Your task to perform on an android device: Open Reddit.com Image 0: 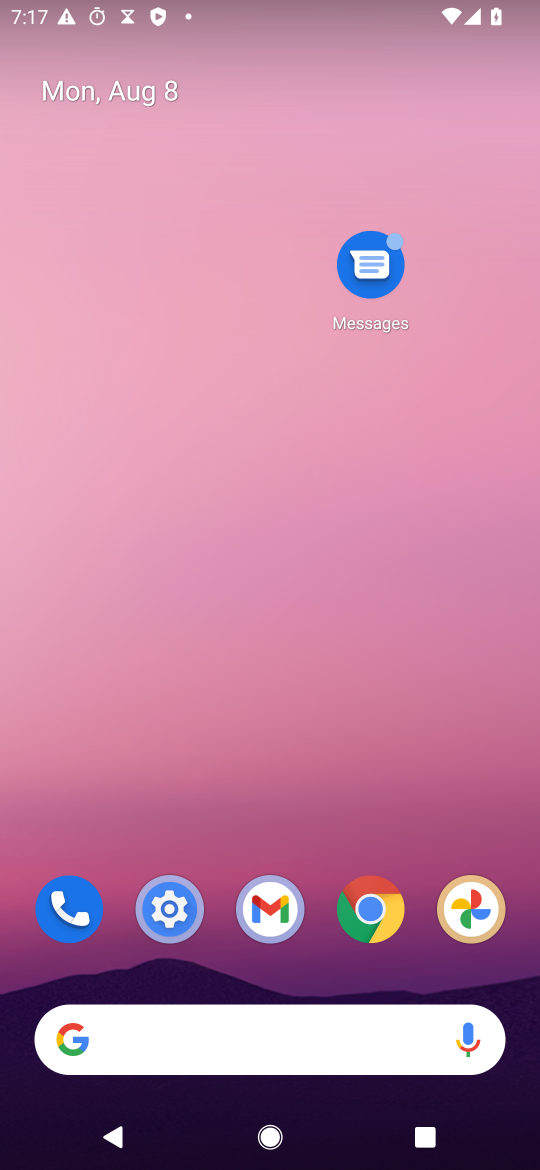
Step 0: click (371, 920)
Your task to perform on an android device: Open Reddit.com Image 1: 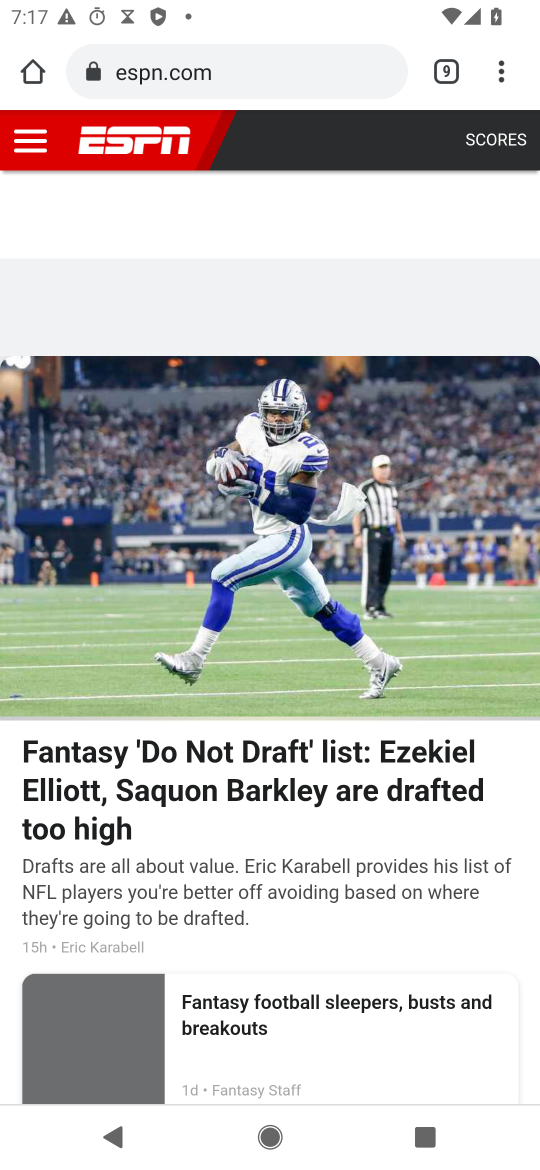
Step 1: drag from (506, 70) to (343, 238)
Your task to perform on an android device: Open Reddit.com Image 2: 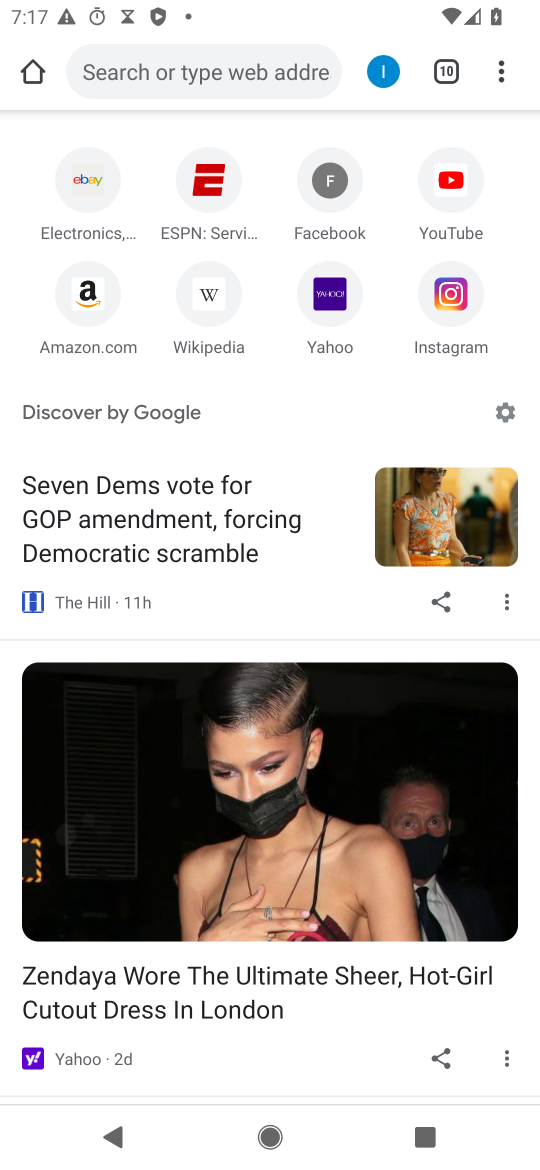
Step 2: click (182, 60)
Your task to perform on an android device: Open Reddit.com Image 3: 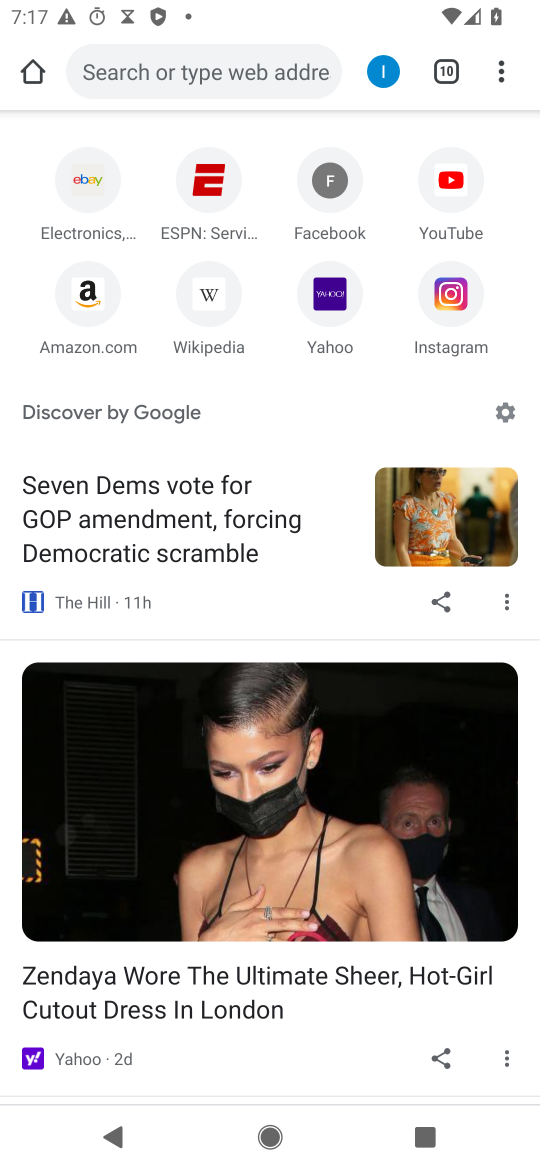
Step 3: click (118, 68)
Your task to perform on an android device: Open Reddit.com Image 4: 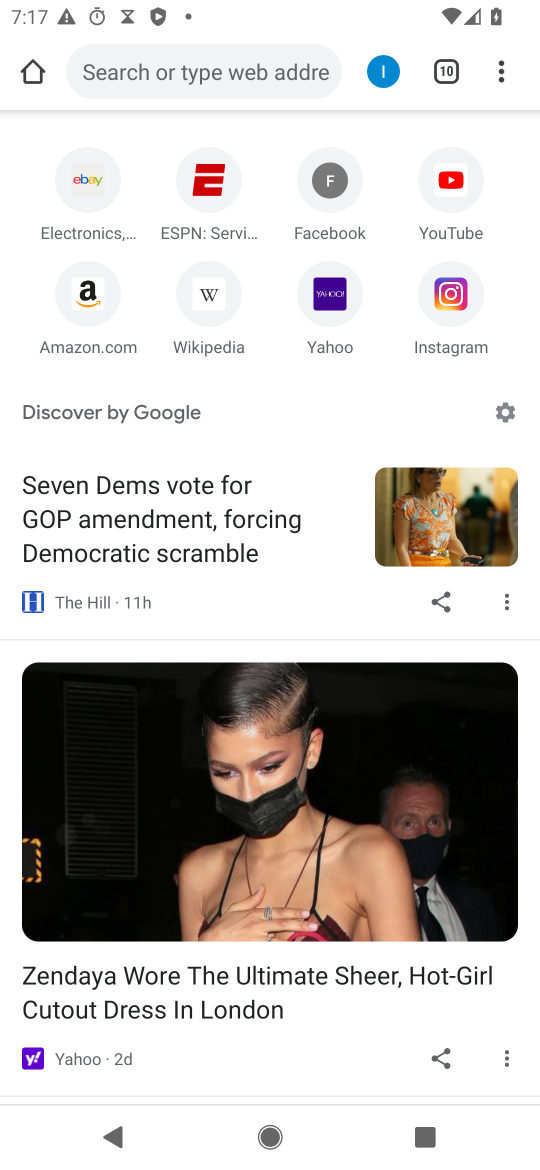
Step 4: click (147, 69)
Your task to perform on an android device: Open Reddit.com Image 5: 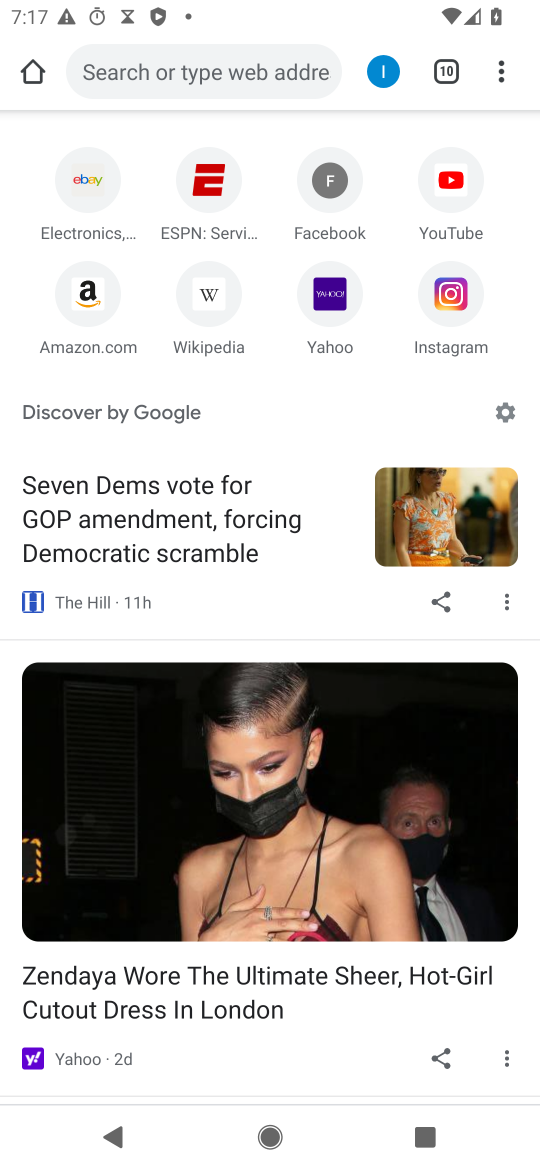
Step 5: click (162, 60)
Your task to perform on an android device: Open Reddit.com Image 6: 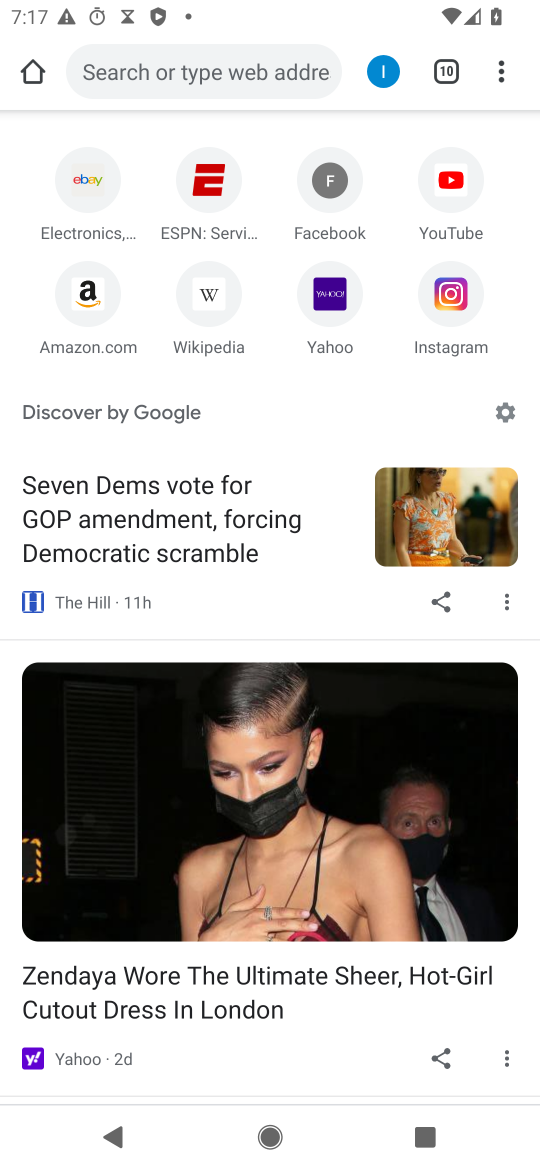
Step 6: drag from (336, 472) to (352, 855)
Your task to perform on an android device: Open Reddit.com Image 7: 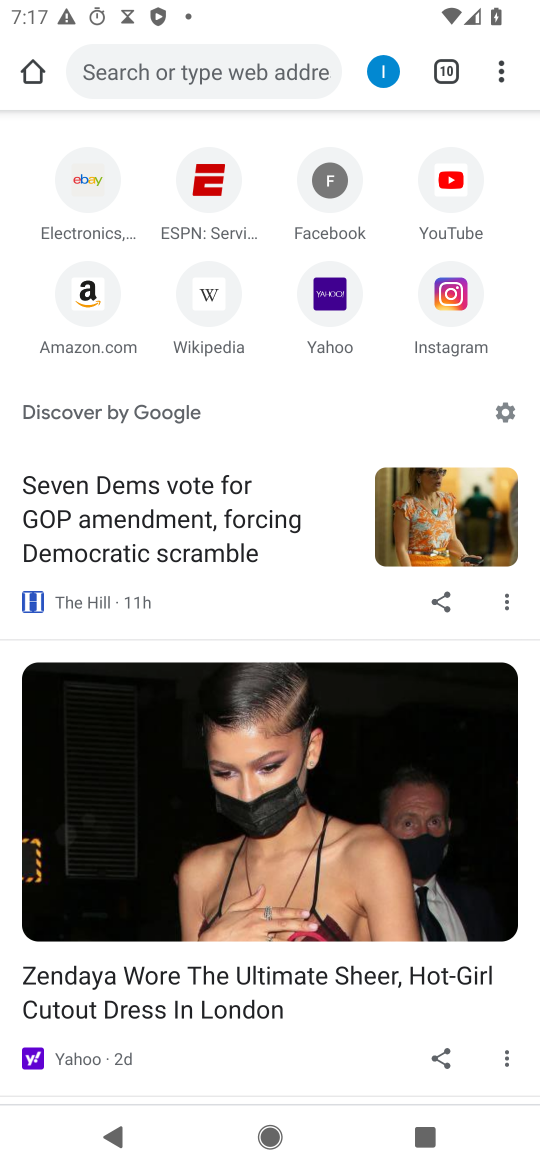
Step 7: click (166, 61)
Your task to perform on an android device: Open Reddit.com Image 8: 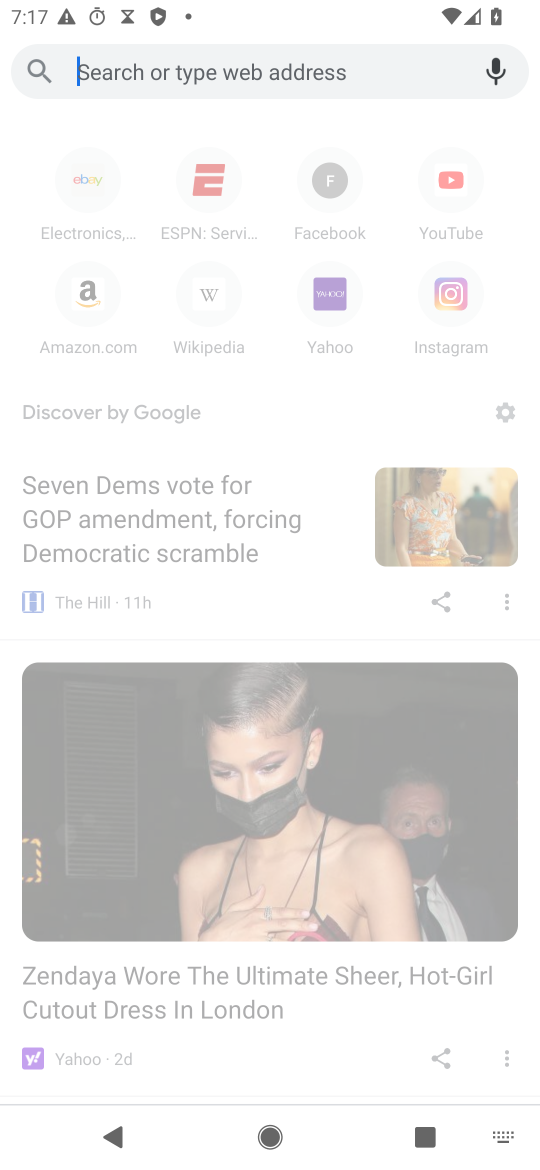
Step 8: click (160, 68)
Your task to perform on an android device: Open Reddit.com Image 9: 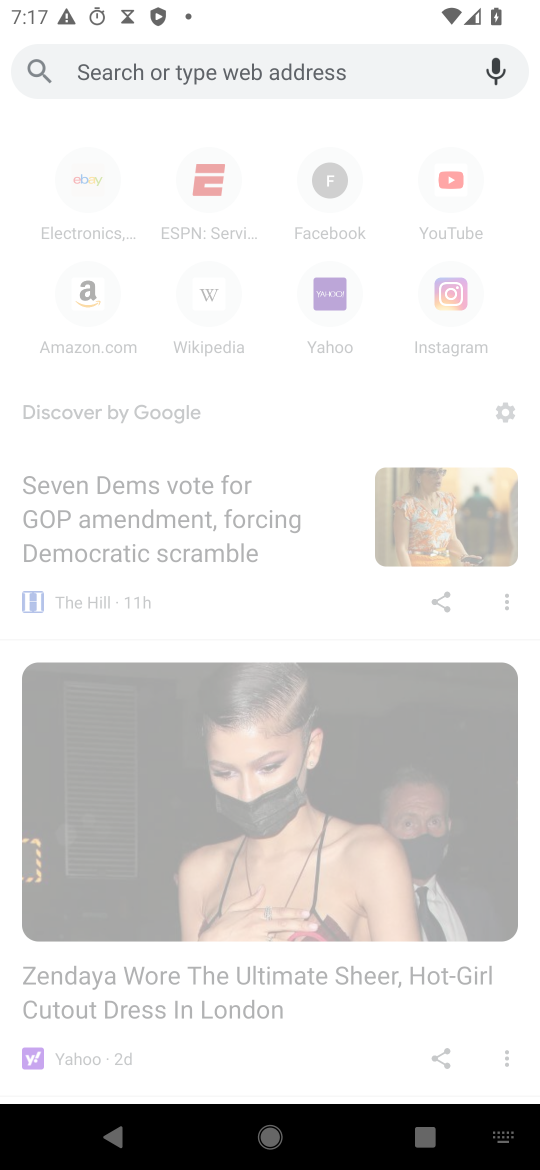
Step 9: type "Reddit.com"
Your task to perform on an android device: Open Reddit.com Image 10: 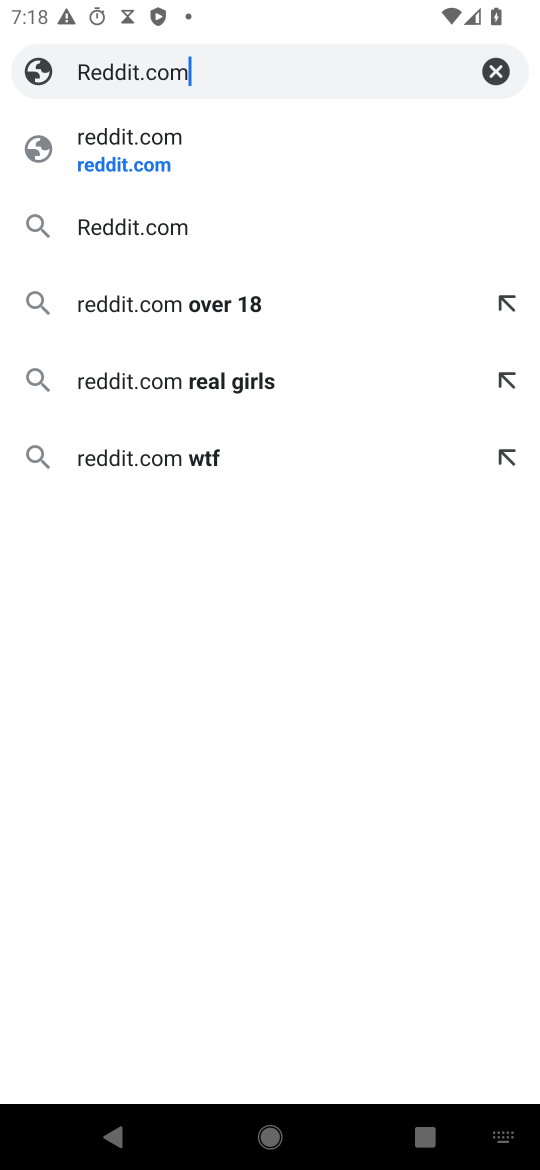
Step 10: click (174, 153)
Your task to perform on an android device: Open Reddit.com Image 11: 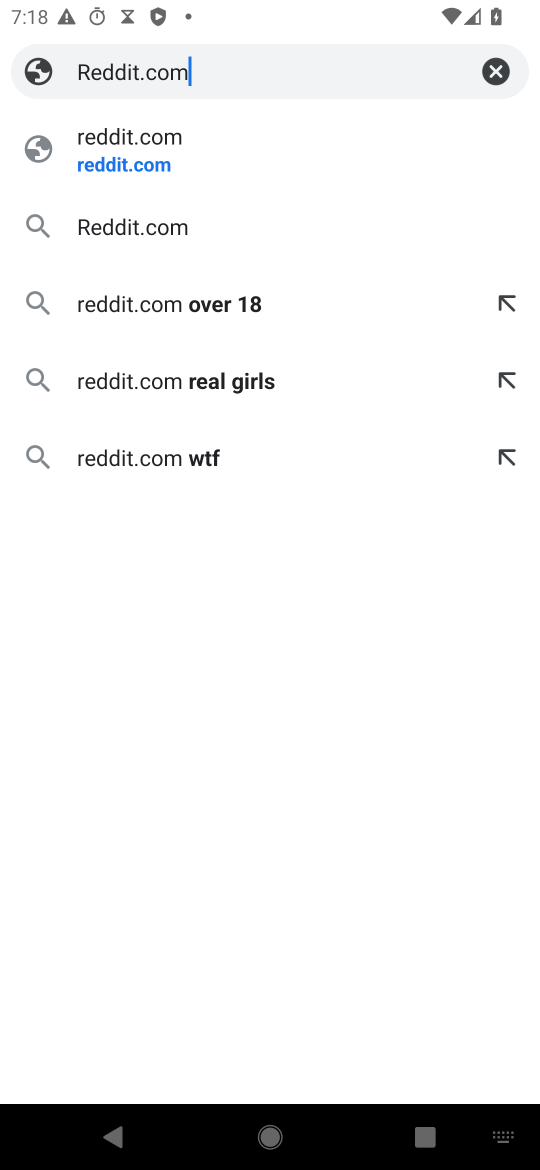
Step 11: click (120, 144)
Your task to perform on an android device: Open Reddit.com Image 12: 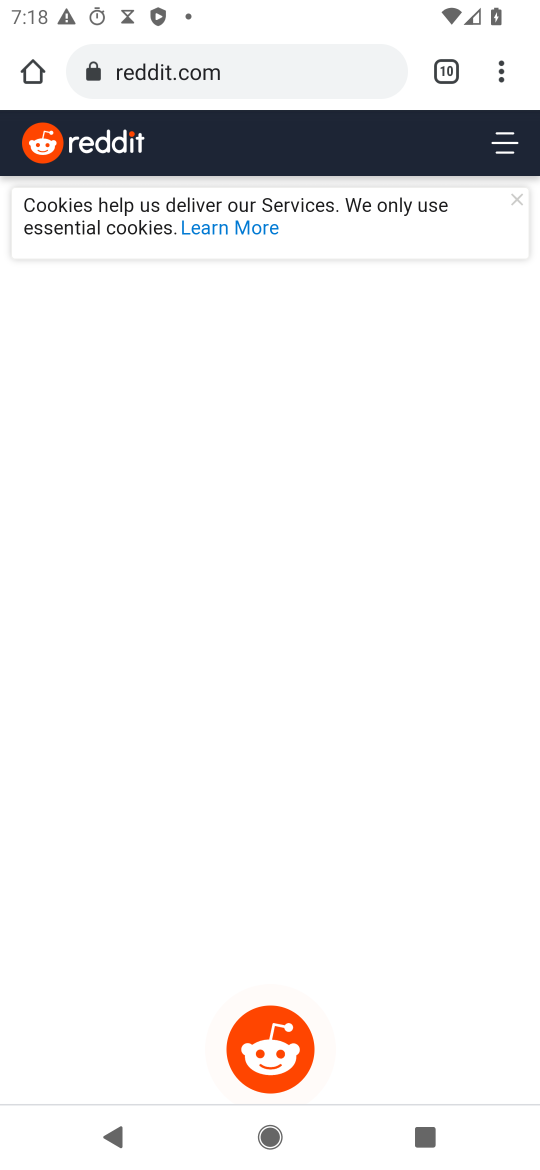
Step 12: task complete